Your task to perform on an android device: add a contact in the contacts app Image 0: 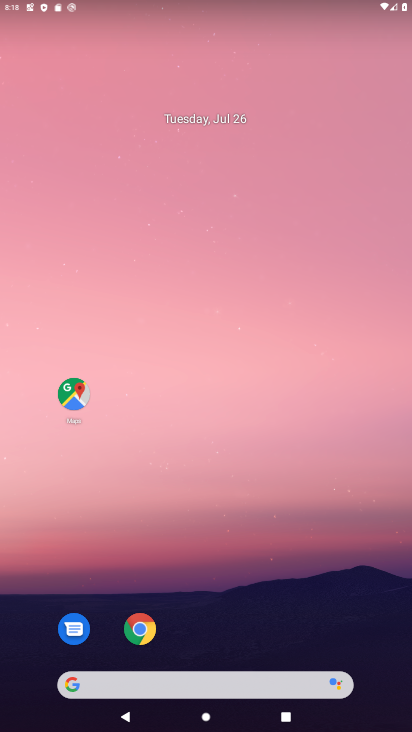
Step 0: drag from (206, 621) to (227, 8)
Your task to perform on an android device: add a contact in the contacts app Image 1: 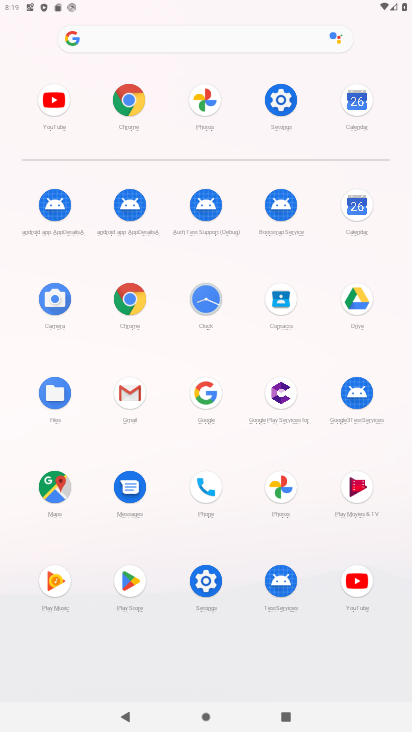
Step 1: click (277, 291)
Your task to perform on an android device: add a contact in the contacts app Image 2: 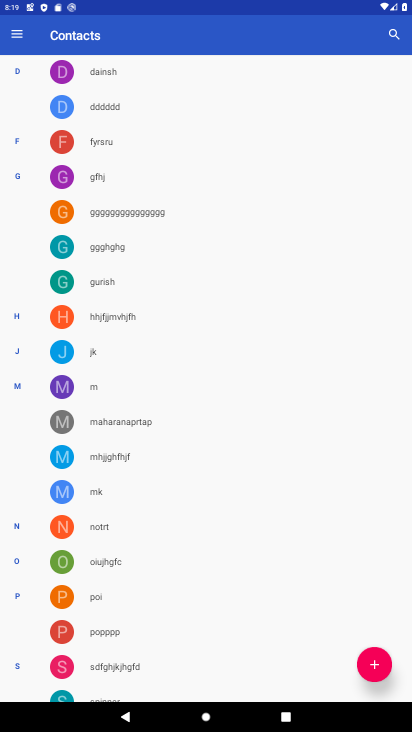
Step 2: click (372, 663)
Your task to perform on an android device: add a contact in the contacts app Image 3: 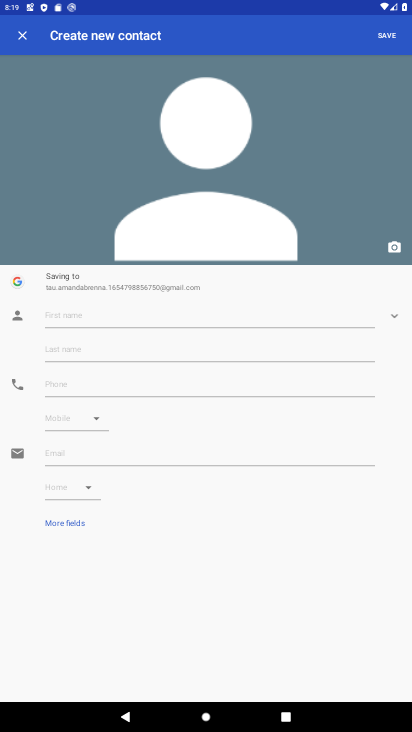
Step 3: click (80, 313)
Your task to perform on an android device: add a contact in the contacts app Image 4: 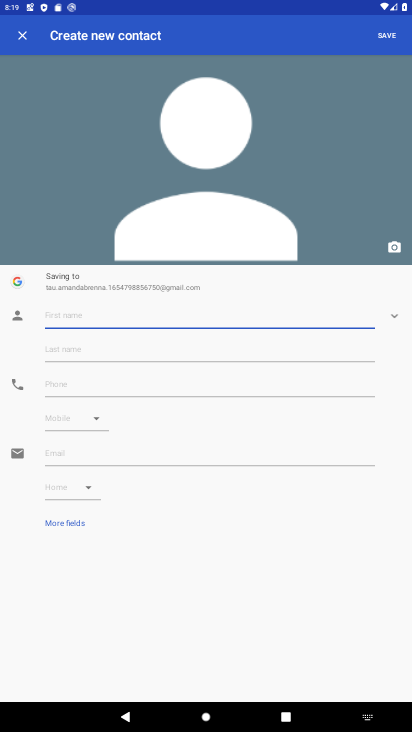
Step 4: type "nbgfhg"
Your task to perform on an android device: add a contact in the contacts app Image 5: 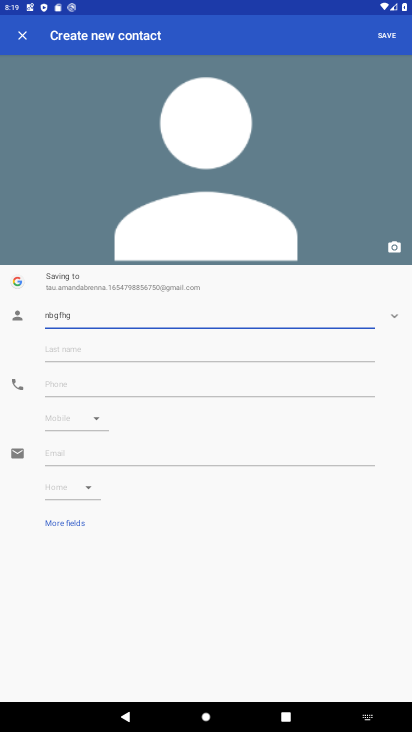
Step 5: click (385, 33)
Your task to perform on an android device: add a contact in the contacts app Image 6: 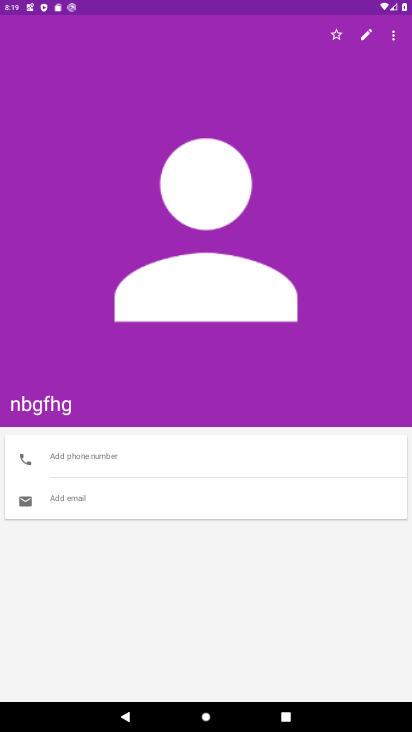
Step 6: task complete